Your task to perform on an android device: Show me recent news Image 0: 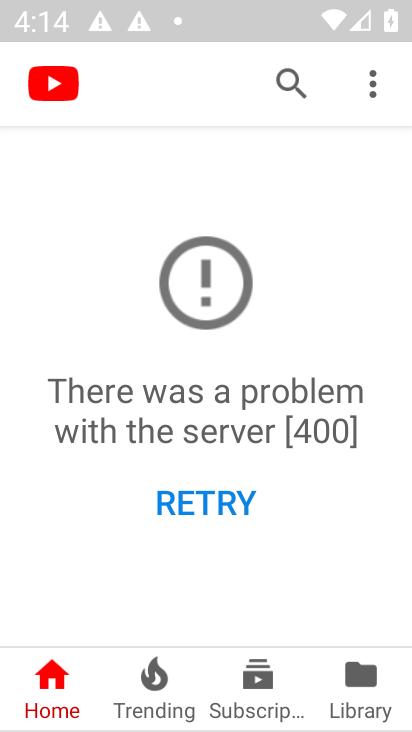
Step 0: press home button
Your task to perform on an android device: Show me recent news Image 1: 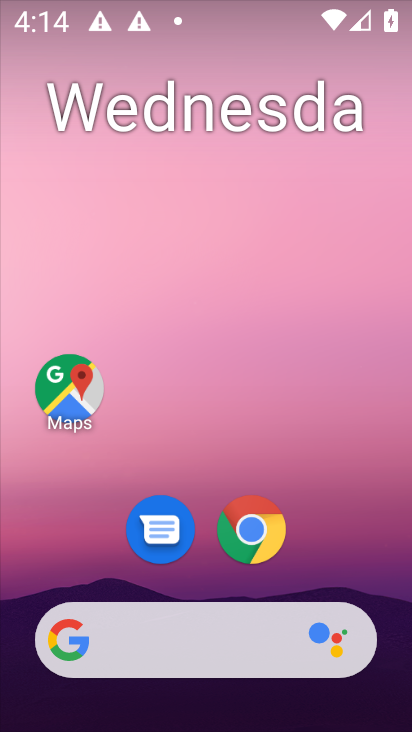
Step 1: drag from (202, 541) to (211, 285)
Your task to perform on an android device: Show me recent news Image 2: 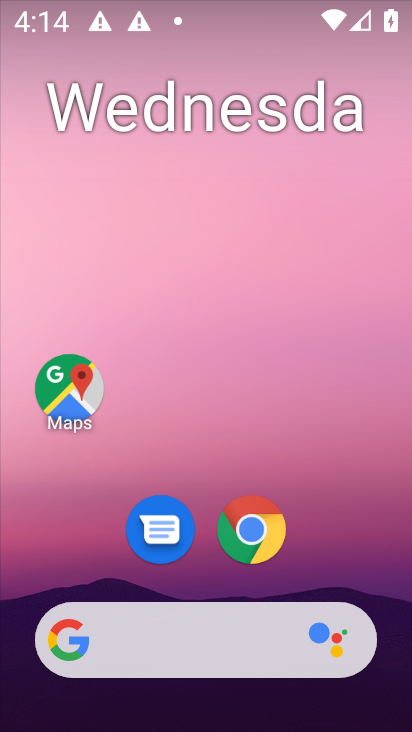
Step 2: drag from (207, 580) to (242, 5)
Your task to perform on an android device: Show me recent news Image 3: 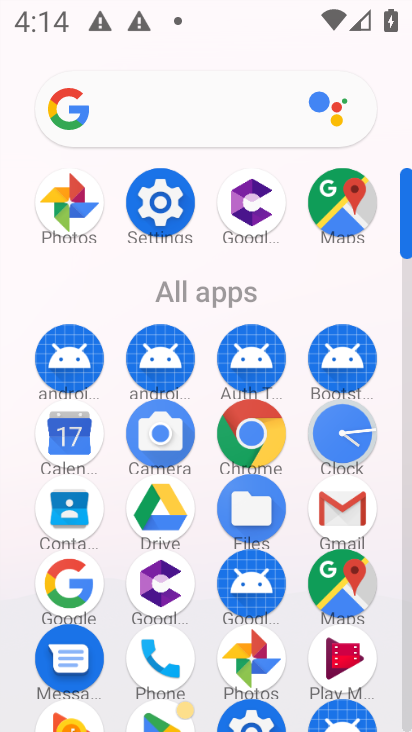
Step 3: click (181, 100)
Your task to perform on an android device: Show me recent news Image 4: 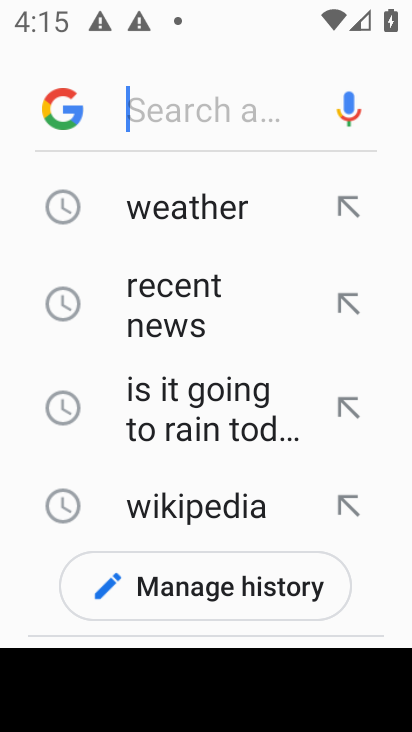
Step 4: type "recent news "
Your task to perform on an android device: Show me recent news Image 5: 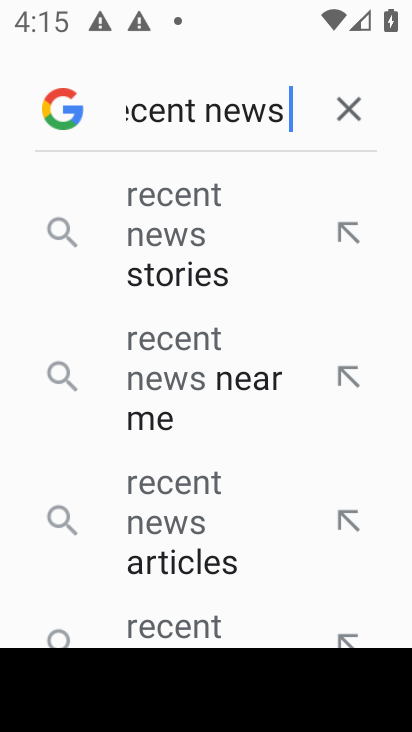
Step 5: click (164, 356)
Your task to perform on an android device: Show me recent news Image 6: 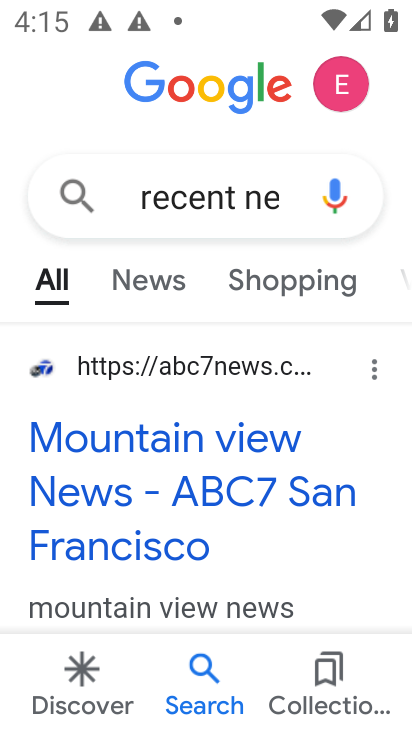
Step 6: drag from (174, 461) to (204, 10)
Your task to perform on an android device: Show me recent news Image 7: 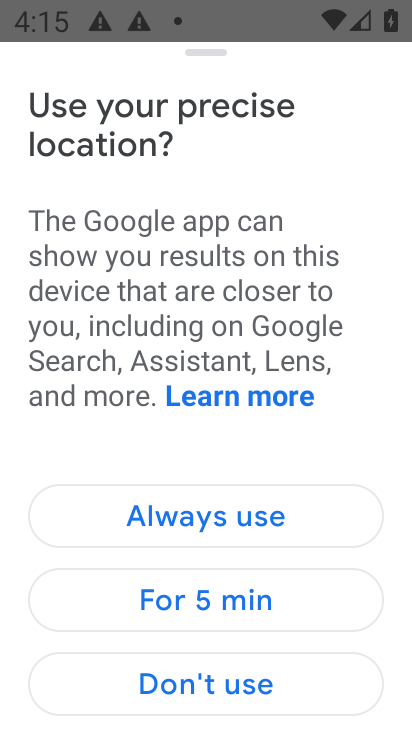
Step 7: click (222, 691)
Your task to perform on an android device: Show me recent news Image 8: 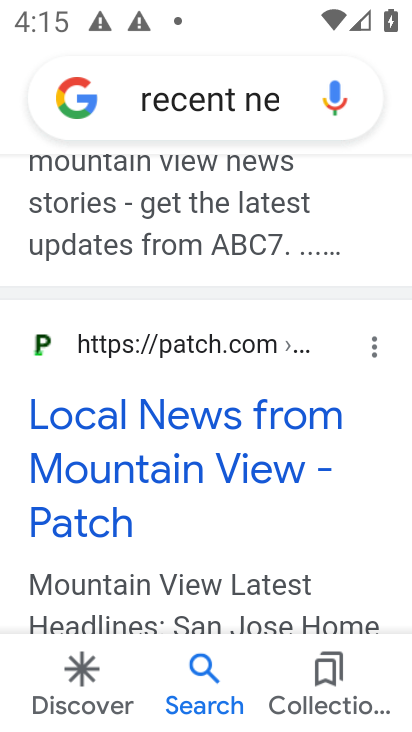
Step 8: click (277, 422)
Your task to perform on an android device: Show me recent news Image 9: 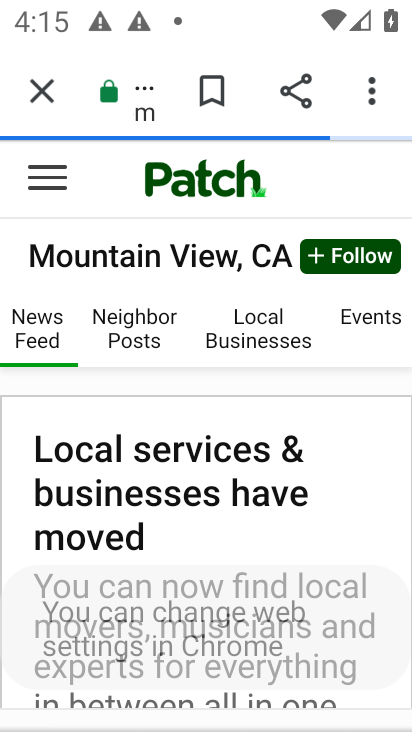
Step 9: task complete